Your task to perform on an android device: turn on translation in the chrome app Image 0: 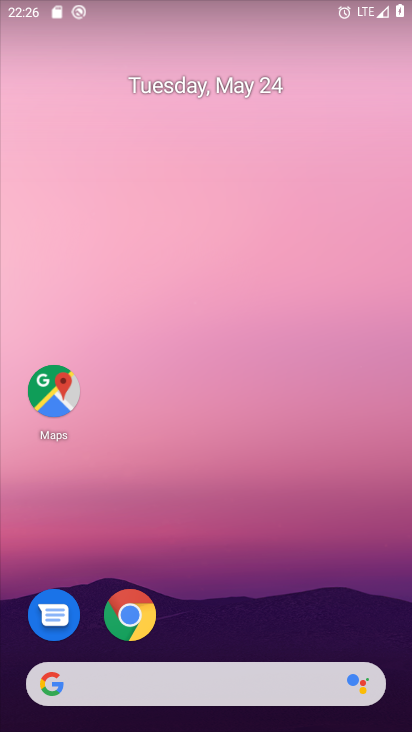
Step 0: drag from (266, 407) to (285, 243)
Your task to perform on an android device: turn on translation in the chrome app Image 1: 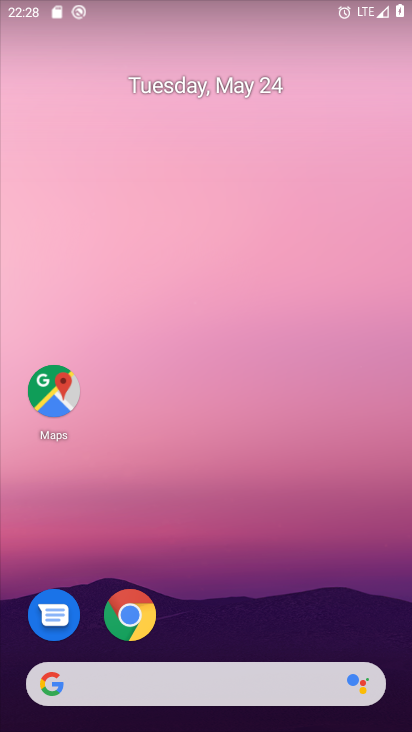
Step 1: drag from (248, 566) to (236, 290)
Your task to perform on an android device: turn on translation in the chrome app Image 2: 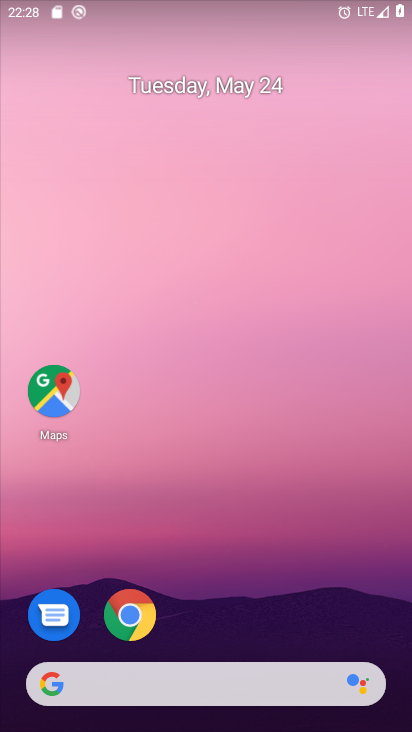
Step 2: drag from (229, 604) to (248, 180)
Your task to perform on an android device: turn on translation in the chrome app Image 3: 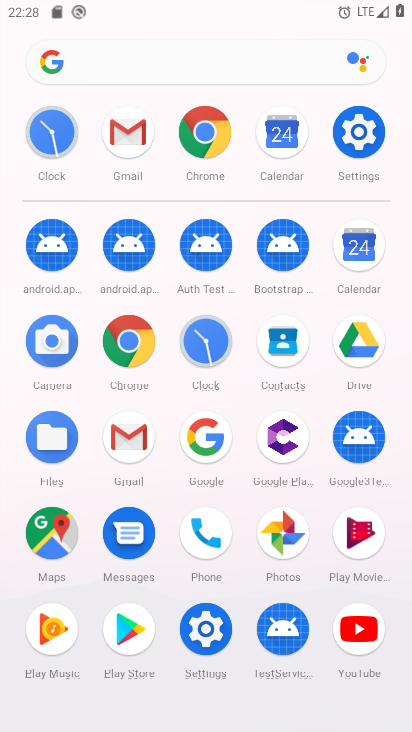
Step 3: click (192, 129)
Your task to perform on an android device: turn on translation in the chrome app Image 4: 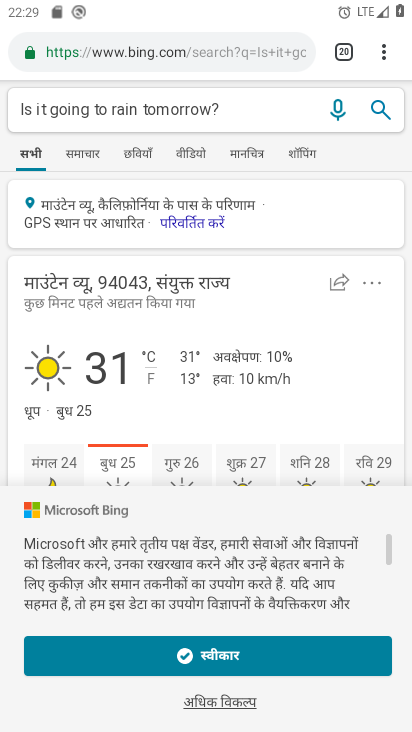
Step 4: click (394, 42)
Your task to perform on an android device: turn on translation in the chrome app Image 5: 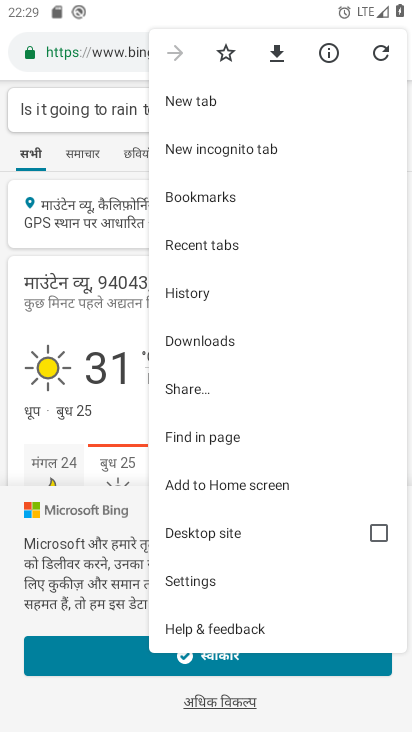
Step 5: drag from (233, 447) to (261, 278)
Your task to perform on an android device: turn on translation in the chrome app Image 6: 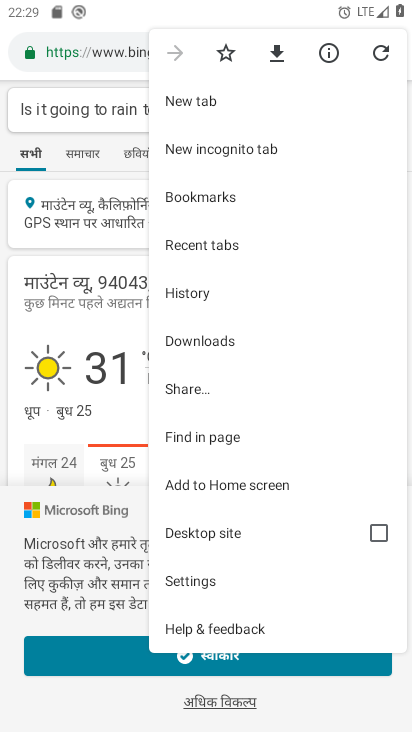
Step 6: click (205, 580)
Your task to perform on an android device: turn on translation in the chrome app Image 7: 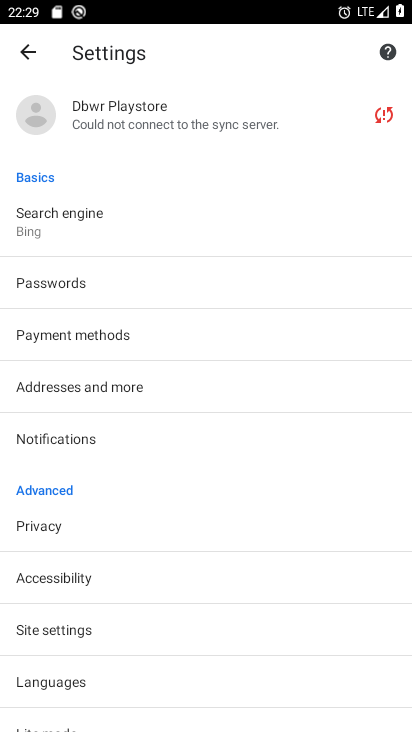
Step 7: drag from (132, 611) to (186, 412)
Your task to perform on an android device: turn on translation in the chrome app Image 8: 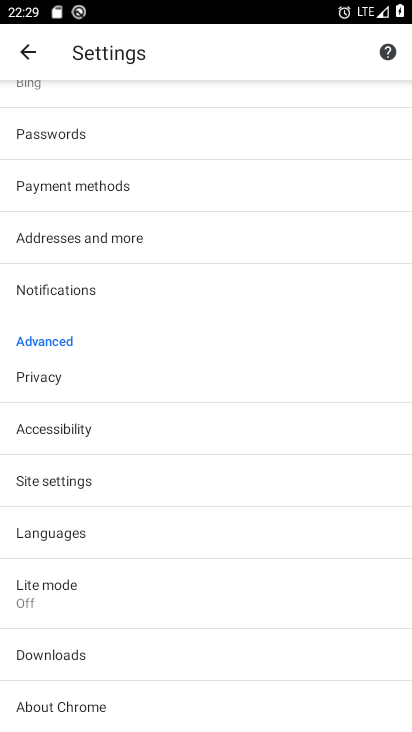
Step 8: click (98, 603)
Your task to perform on an android device: turn on translation in the chrome app Image 9: 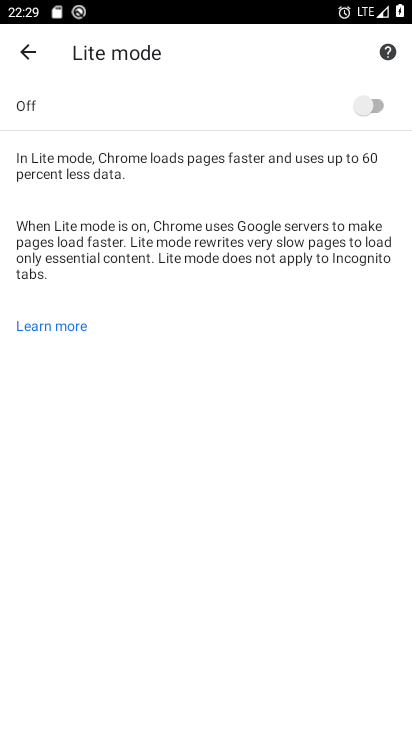
Step 9: click (27, 41)
Your task to perform on an android device: turn on translation in the chrome app Image 10: 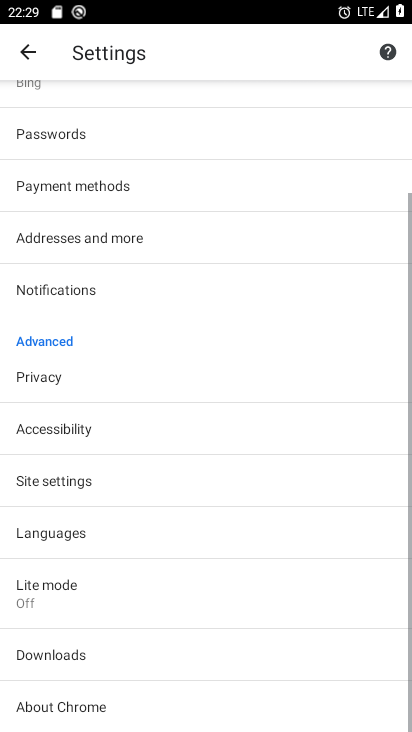
Step 10: click (98, 530)
Your task to perform on an android device: turn on translation in the chrome app Image 11: 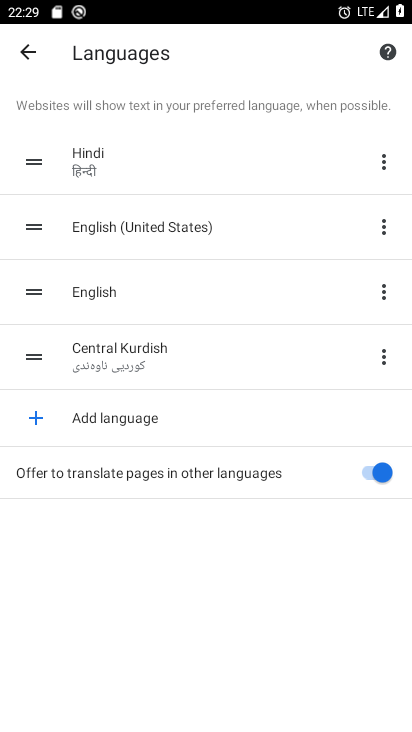
Step 11: click (364, 469)
Your task to perform on an android device: turn on translation in the chrome app Image 12: 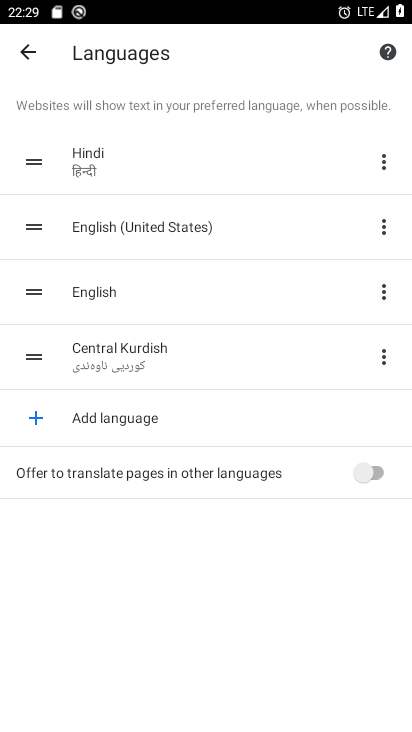
Step 12: click (379, 470)
Your task to perform on an android device: turn on translation in the chrome app Image 13: 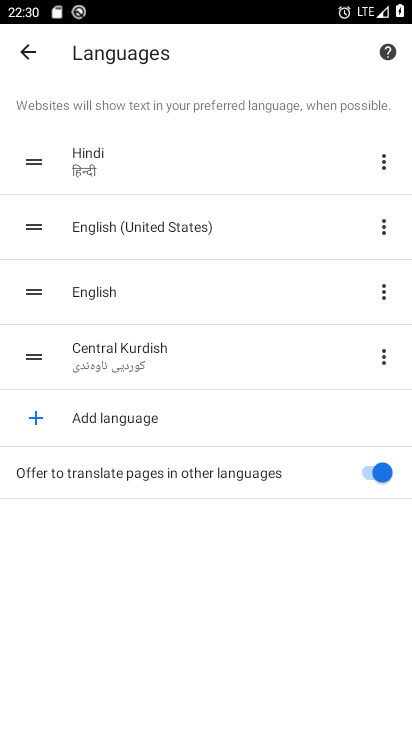
Step 13: task complete